Your task to perform on an android device: change the clock style Image 0: 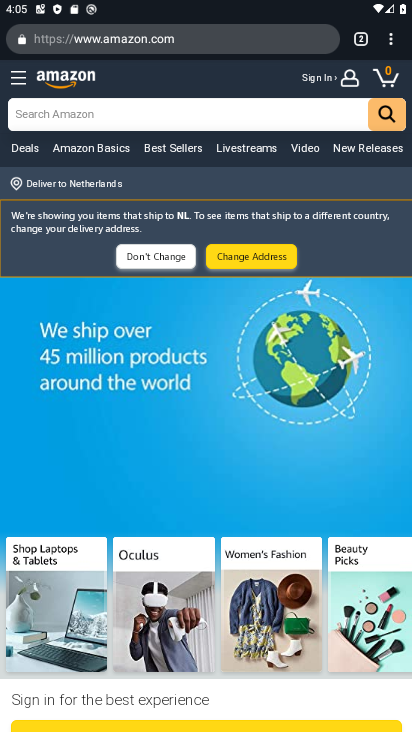
Step 0: press home button
Your task to perform on an android device: change the clock style Image 1: 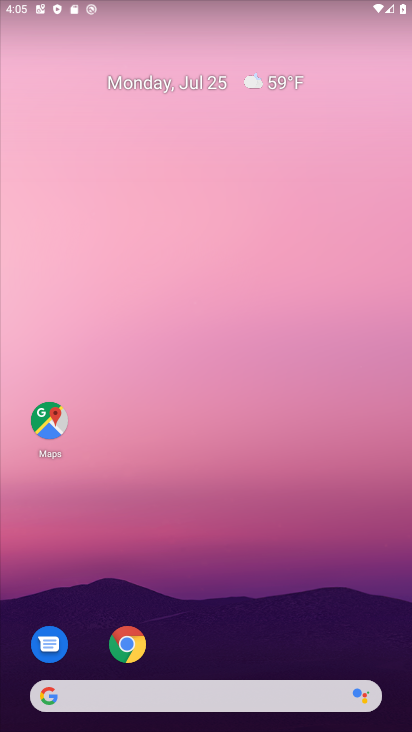
Step 1: drag from (247, 631) to (286, 235)
Your task to perform on an android device: change the clock style Image 2: 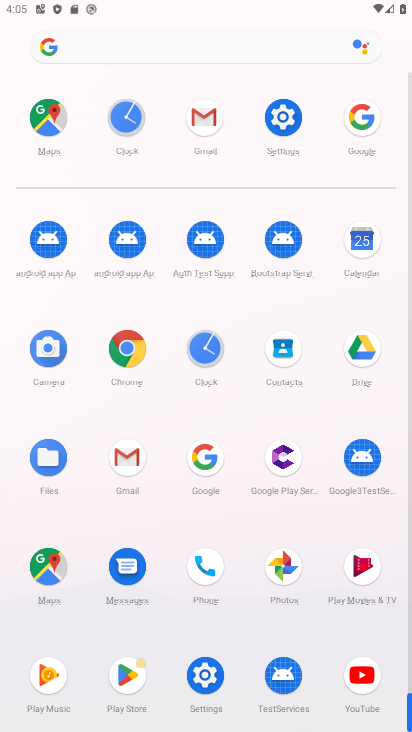
Step 2: click (206, 353)
Your task to perform on an android device: change the clock style Image 3: 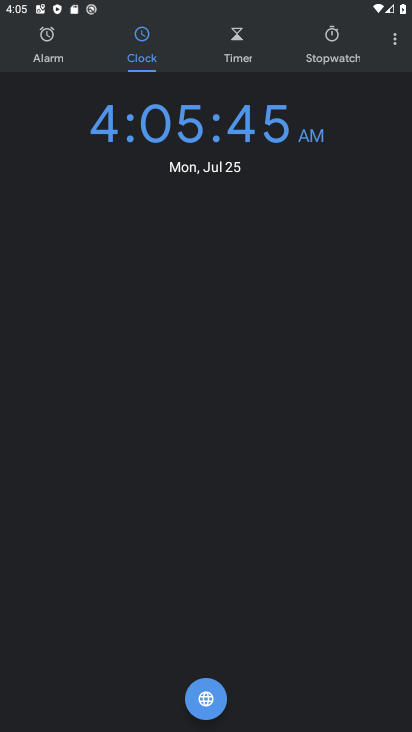
Step 3: click (395, 37)
Your task to perform on an android device: change the clock style Image 4: 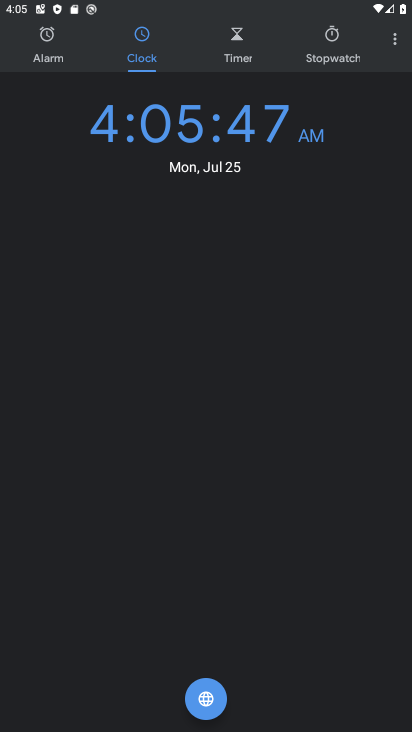
Step 4: click (390, 42)
Your task to perform on an android device: change the clock style Image 5: 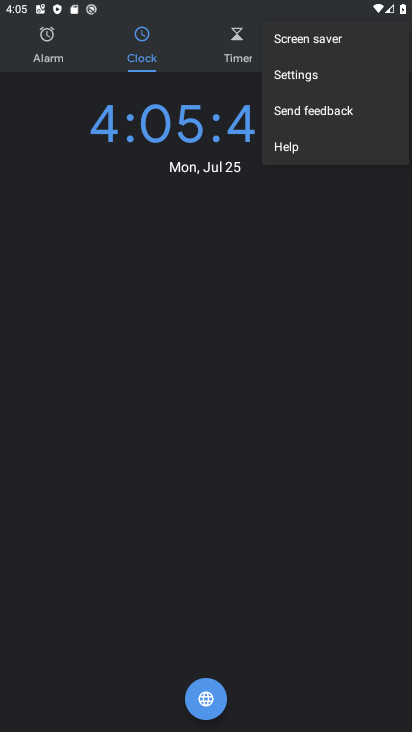
Step 5: click (327, 76)
Your task to perform on an android device: change the clock style Image 6: 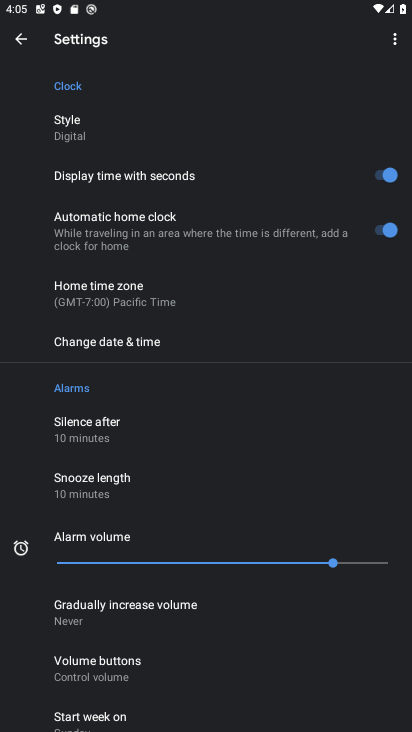
Step 6: click (56, 132)
Your task to perform on an android device: change the clock style Image 7: 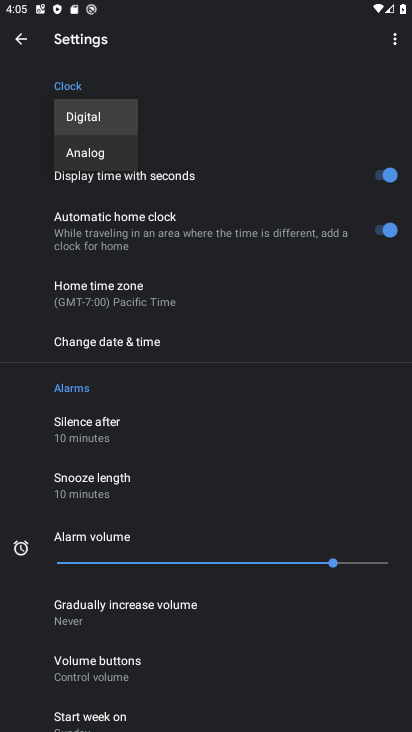
Step 7: click (104, 153)
Your task to perform on an android device: change the clock style Image 8: 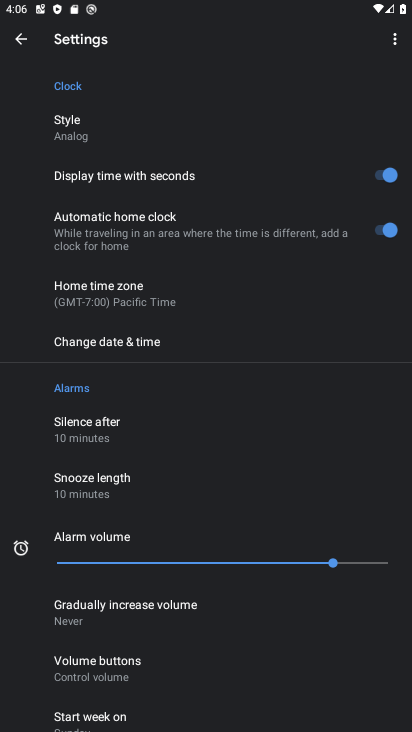
Step 8: task complete